Your task to perform on an android device: What's the weather? Image 0: 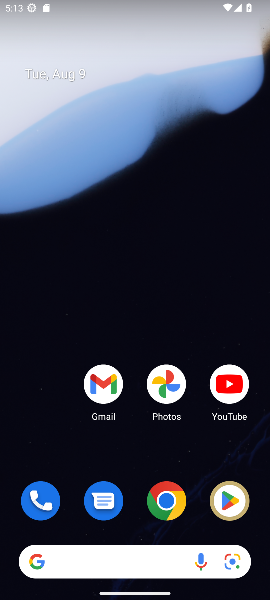
Step 0: drag from (117, 510) to (111, 77)
Your task to perform on an android device: What's the weather? Image 1: 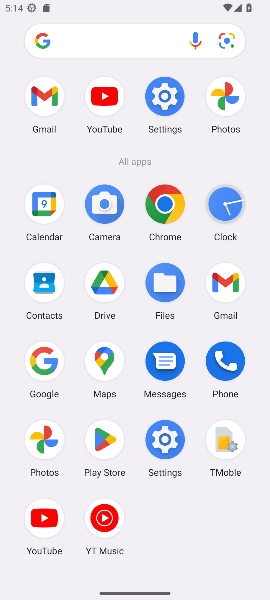
Step 1: click (37, 361)
Your task to perform on an android device: What's the weather? Image 2: 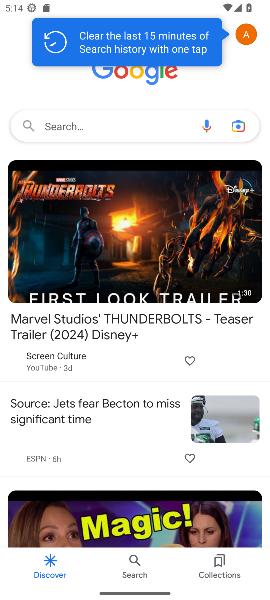
Step 2: click (105, 120)
Your task to perform on an android device: What's the weather? Image 3: 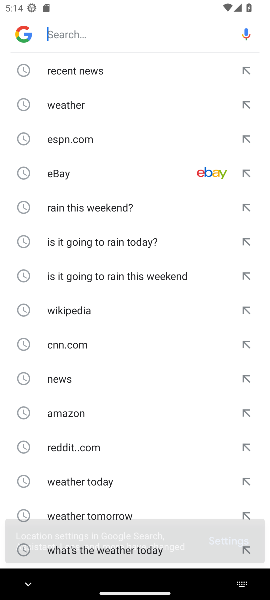
Step 3: click (75, 106)
Your task to perform on an android device: What's the weather? Image 4: 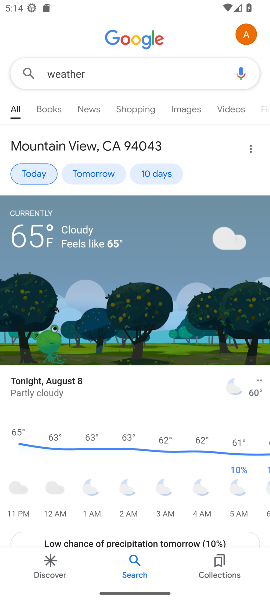
Step 4: task complete